Your task to perform on an android device: Search for pizza restaurants on Maps Image 0: 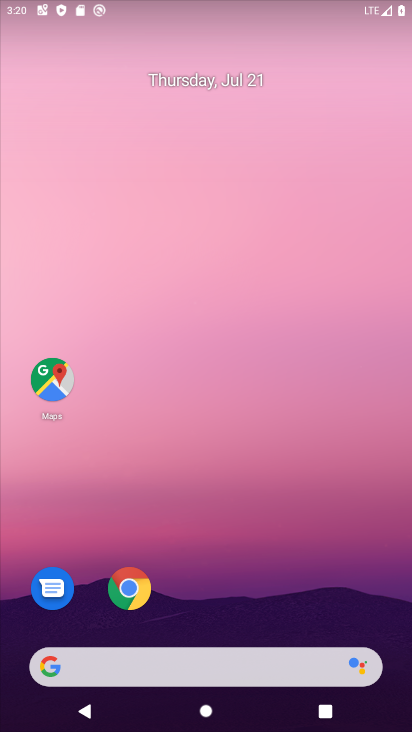
Step 0: drag from (321, 537) to (356, 149)
Your task to perform on an android device: Search for pizza restaurants on Maps Image 1: 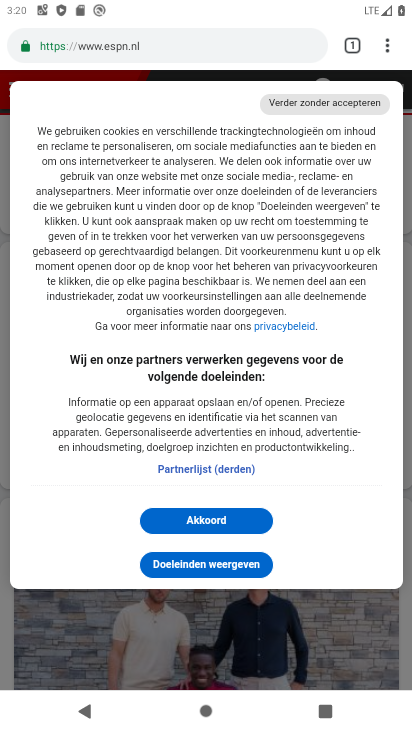
Step 1: press home button
Your task to perform on an android device: Search for pizza restaurants on Maps Image 2: 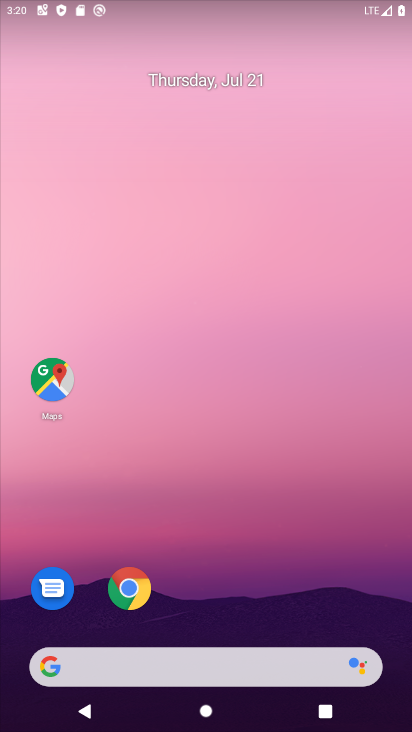
Step 2: click (52, 386)
Your task to perform on an android device: Search for pizza restaurants on Maps Image 3: 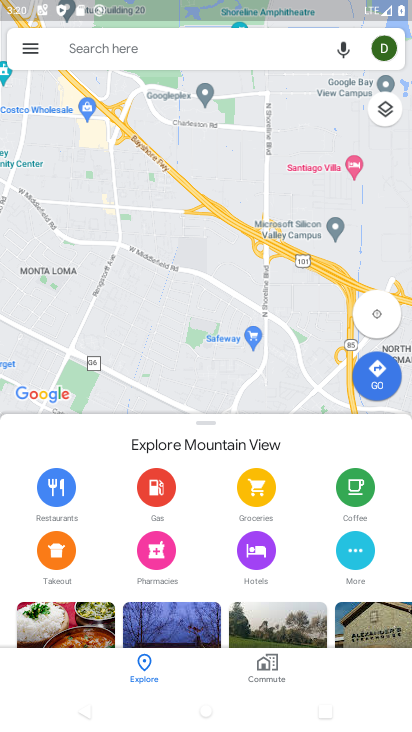
Step 3: click (248, 46)
Your task to perform on an android device: Search for pizza restaurants on Maps Image 4: 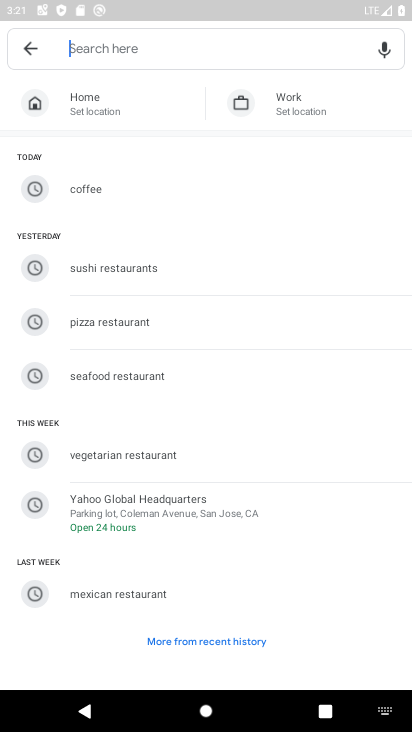
Step 4: type "pizza restaurants"
Your task to perform on an android device: Search for pizza restaurants on Maps Image 5: 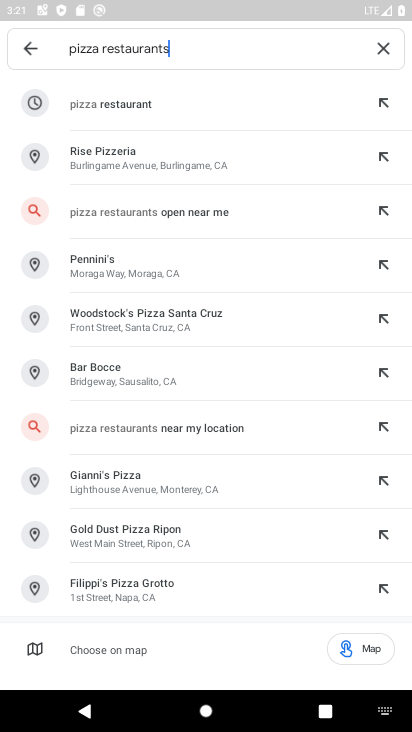
Step 5: click (166, 102)
Your task to perform on an android device: Search for pizza restaurants on Maps Image 6: 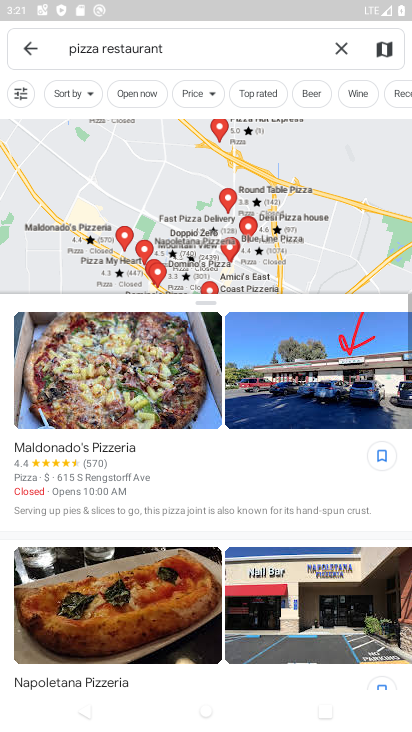
Step 6: task complete